Your task to perform on an android device: toggle improve location accuracy Image 0: 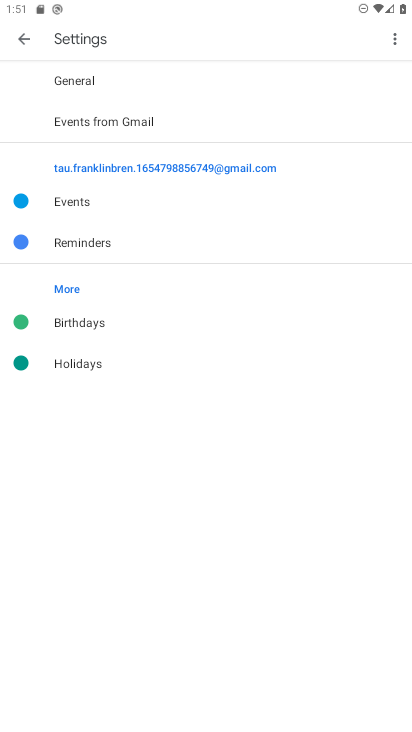
Step 0: press home button
Your task to perform on an android device: toggle improve location accuracy Image 1: 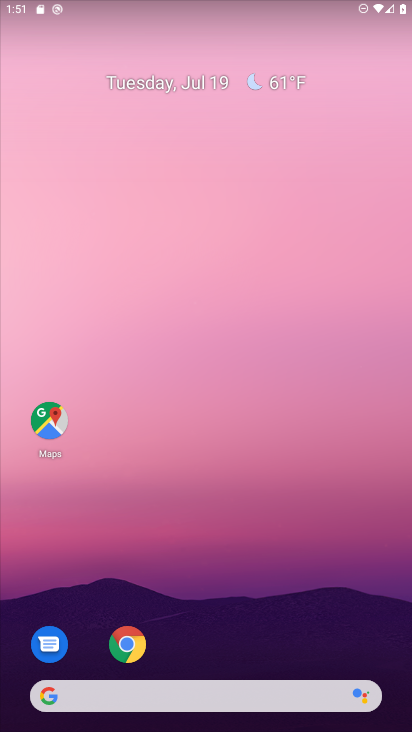
Step 1: drag from (209, 676) to (179, 187)
Your task to perform on an android device: toggle improve location accuracy Image 2: 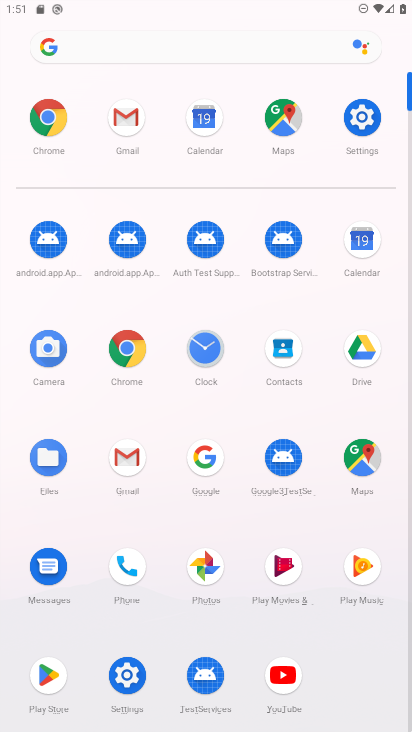
Step 2: click (363, 129)
Your task to perform on an android device: toggle improve location accuracy Image 3: 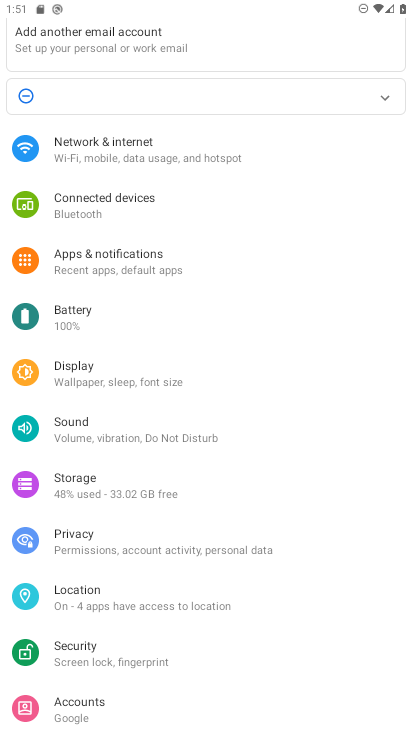
Step 3: click (98, 602)
Your task to perform on an android device: toggle improve location accuracy Image 4: 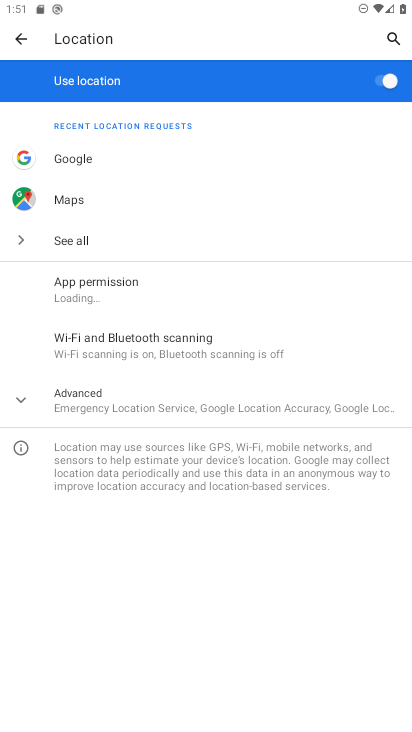
Step 4: click (99, 406)
Your task to perform on an android device: toggle improve location accuracy Image 5: 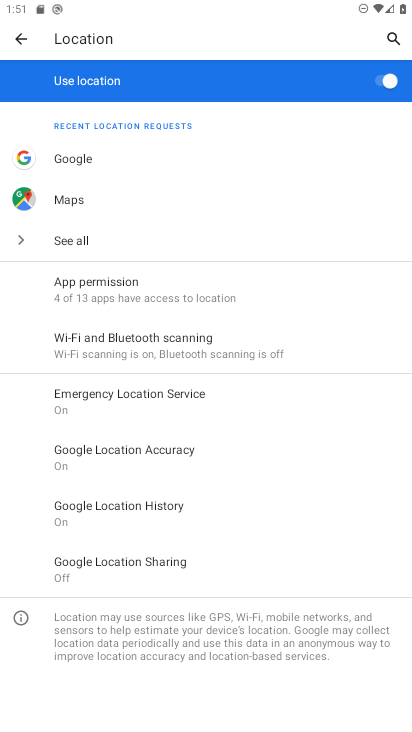
Step 5: click (147, 444)
Your task to perform on an android device: toggle improve location accuracy Image 6: 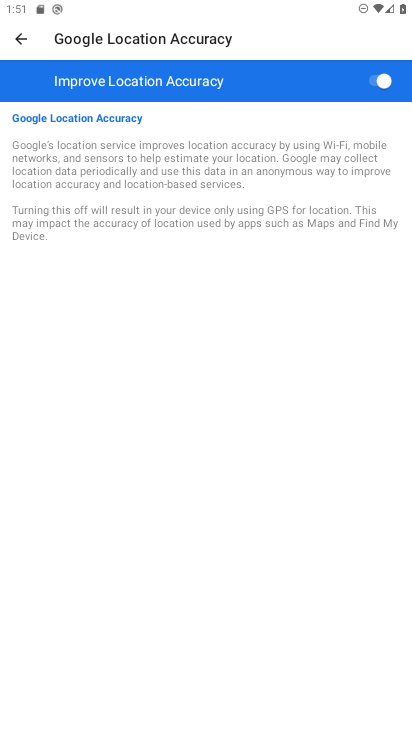
Step 6: click (380, 77)
Your task to perform on an android device: toggle improve location accuracy Image 7: 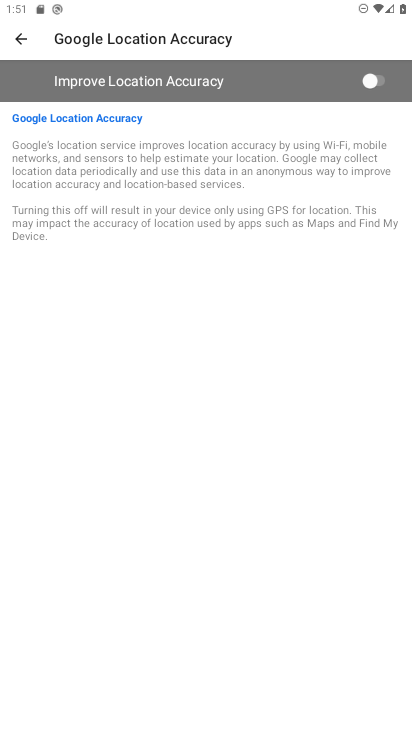
Step 7: task complete